Your task to perform on an android device: change the clock display to analog Image 0: 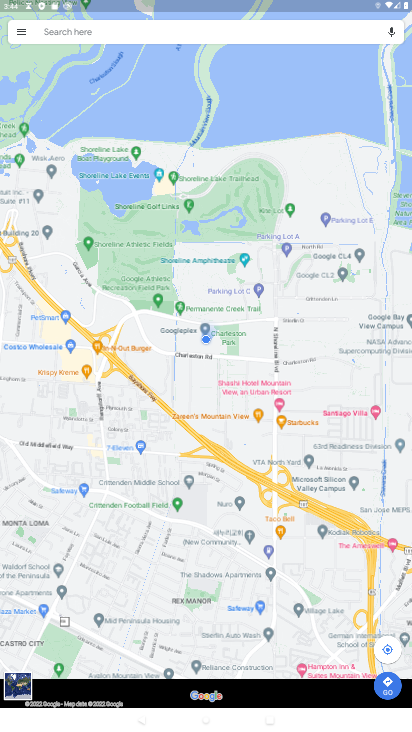
Step 0: press home button
Your task to perform on an android device: change the clock display to analog Image 1: 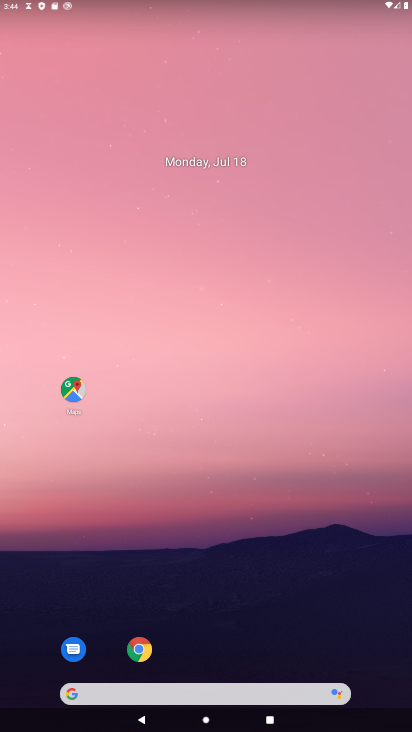
Step 1: drag from (274, 597) to (292, 225)
Your task to perform on an android device: change the clock display to analog Image 2: 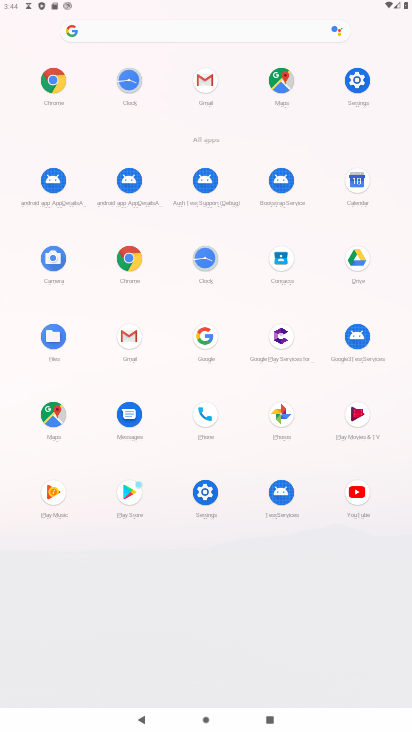
Step 2: click (204, 250)
Your task to perform on an android device: change the clock display to analog Image 3: 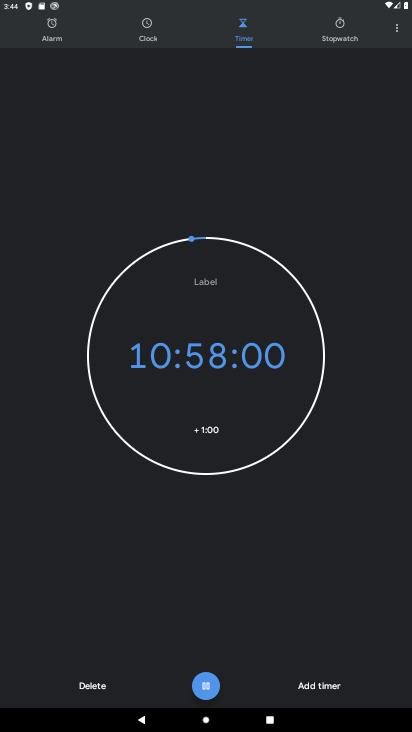
Step 3: click (393, 29)
Your task to perform on an android device: change the clock display to analog Image 4: 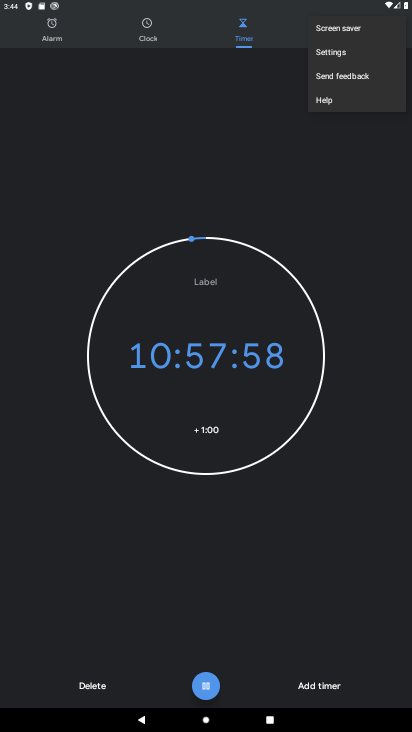
Step 4: click (346, 57)
Your task to perform on an android device: change the clock display to analog Image 5: 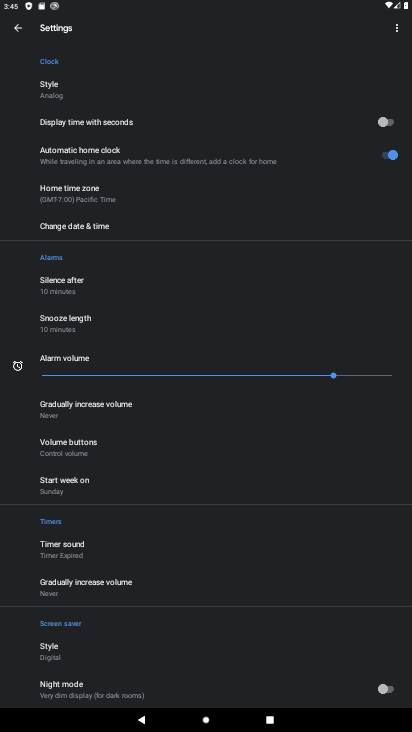
Step 5: click (56, 94)
Your task to perform on an android device: change the clock display to analog Image 6: 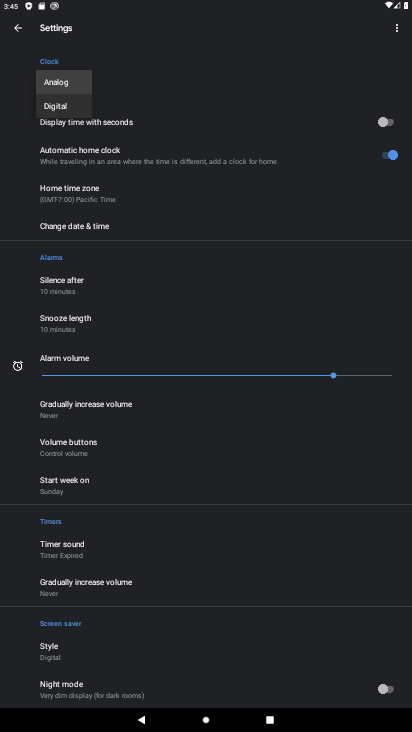
Step 6: task complete